Your task to perform on an android device: add a label to a message in the gmail app Image 0: 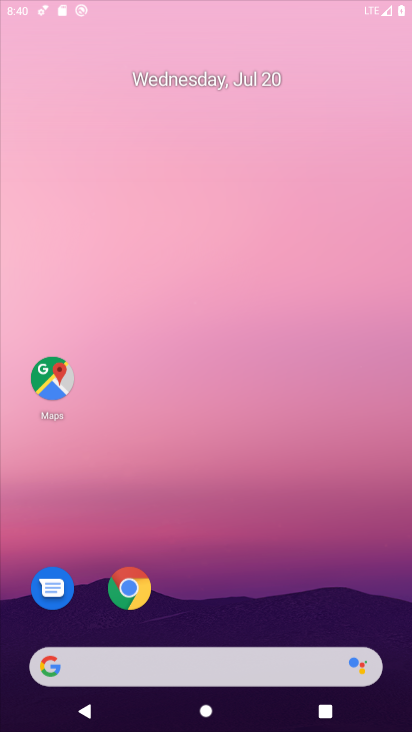
Step 0: press home button
Your task to perform on an android device: add a label to a message in the gmail app Image 1: 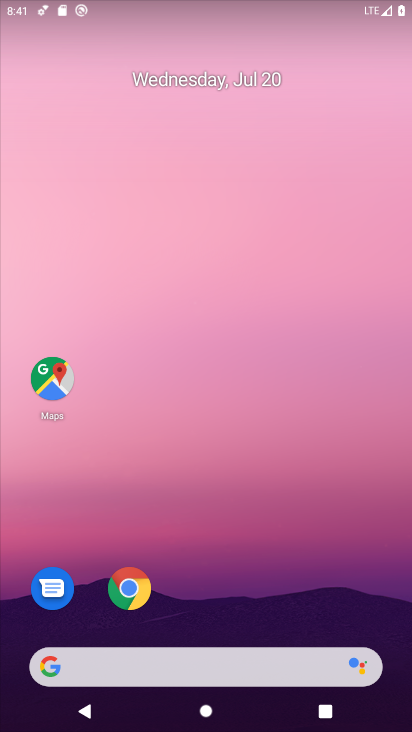
Step 1: drag from (228, 613) to (264, 105)
Your task to perform on an android device: add a label to a message in the gmail app Image 2: 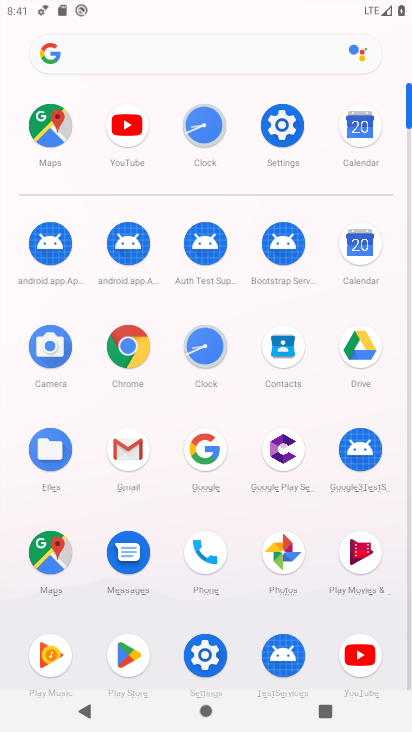
Step 2: click (122, 444)
Your task to perform on an android device: add a label to a message in the gmail app Image 3: 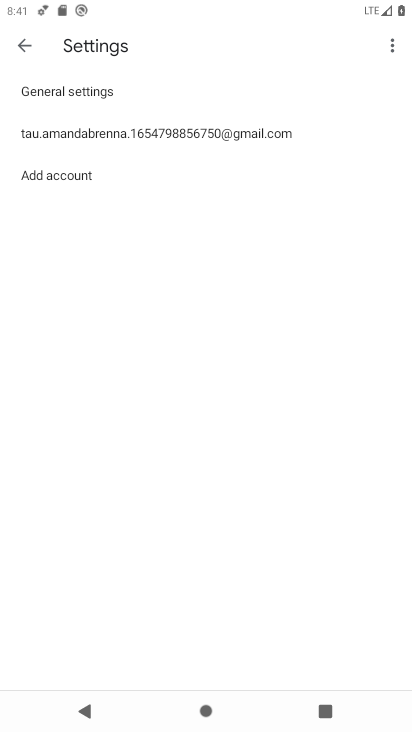
Step 3: click (27, 40)
Your task to perform on an android device: add a label to a message in the gmail app Image 4: 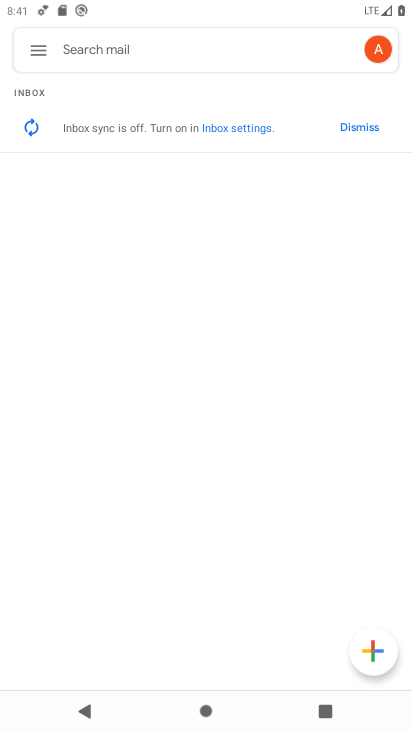
Step 4: click (24, 52)
Your task to perform on an android device: add a label to a message in the gmail app Image 5: 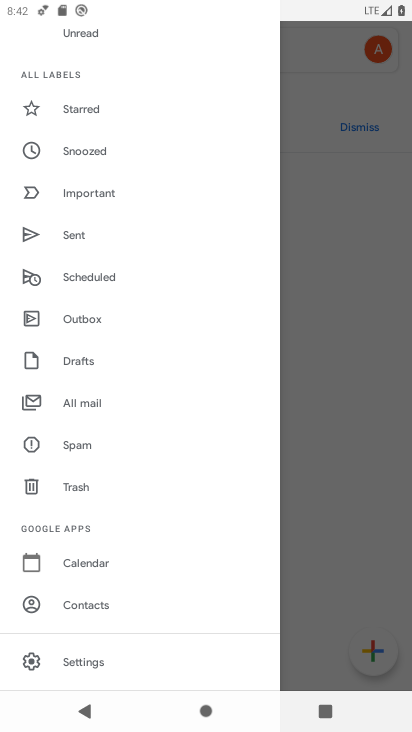
Step 5: click (345, 290)
Your task to perform on an android device: add a label to a message in the gmail app Image 6: 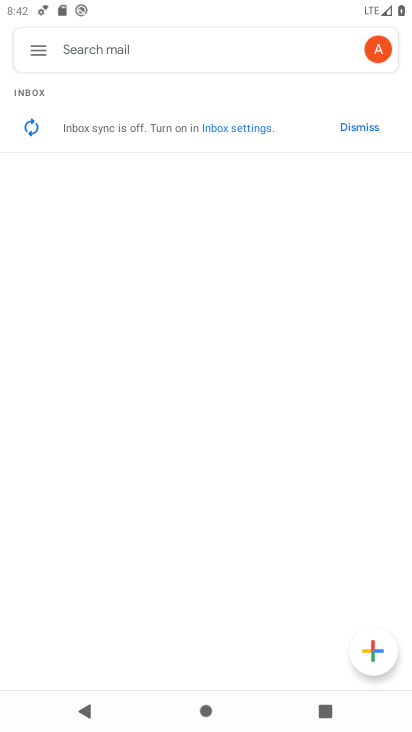
Step 6: task complete